Your task to perform on an android device: turn off sleep mode Image 0: 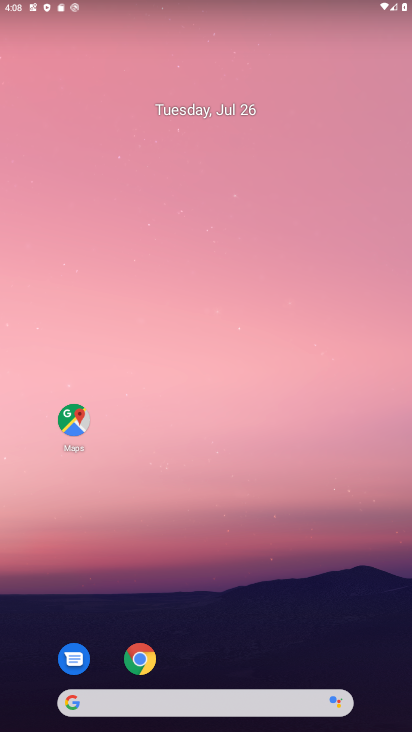
Step 0: drag from (325, 653) to (7, 126)
Your task to perform on an android device: turn off sleep mode Image 1: 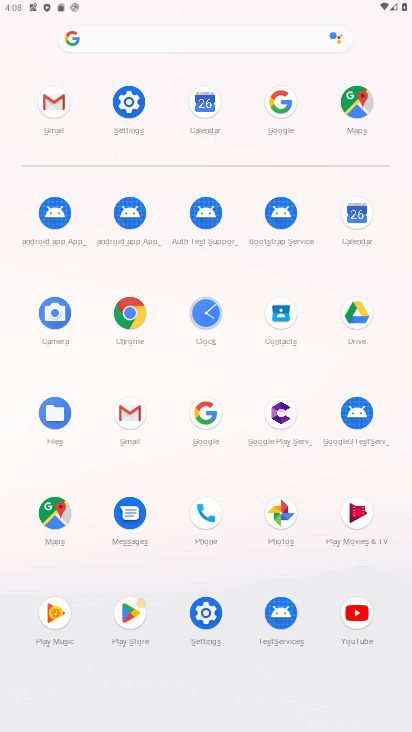
Step 1: click (129, 109)
Your task to perform on an android device: turn off sleep mode Image 2: 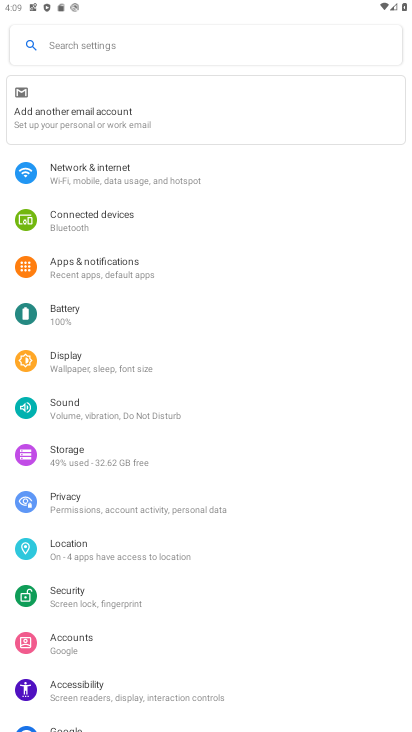
Step 2: click (81, 371)
Your task to perform on an android device: turn off sleep mode Image 3: 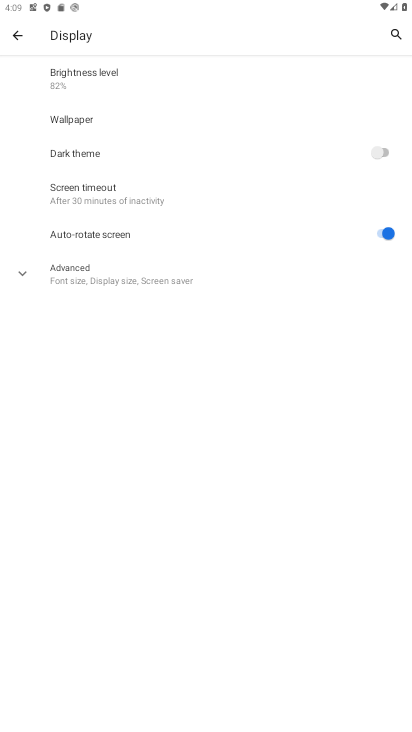
Step 3: click (80, 199)
Your task to perform on an android device: turn off sleep mode Image 4: 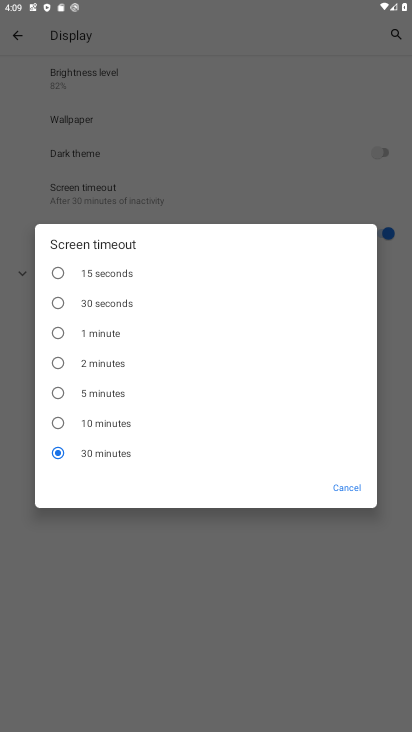
Step 4: task complete